Your task to perform on an android device: change timer sound Image 0: 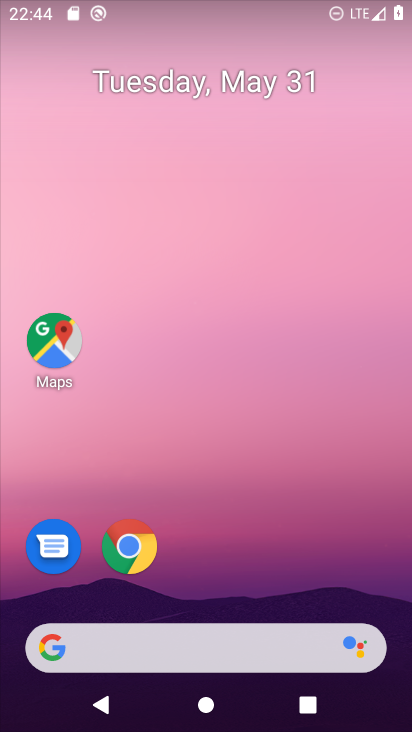
Step 0: drag from (399, 685) to (379, 146)
Your task to perform on an android device: change timer sound Image 1: 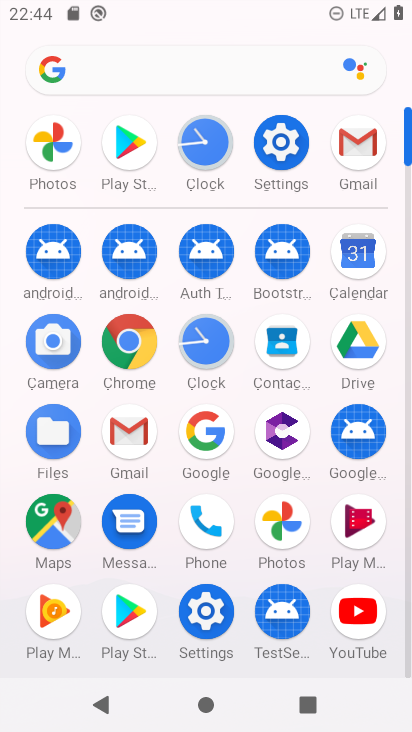
Step 1: click (282, 140)
Your task to perform on an android device: change timer sound Image 2: 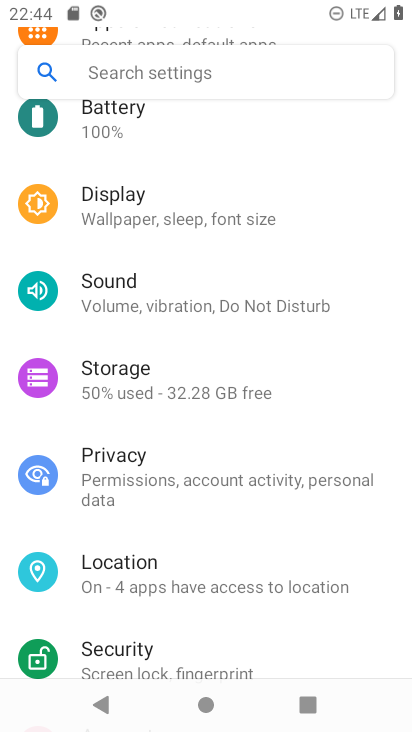
Step 2: press home button
Your task to perform on an android device: change timer sound Image 3: 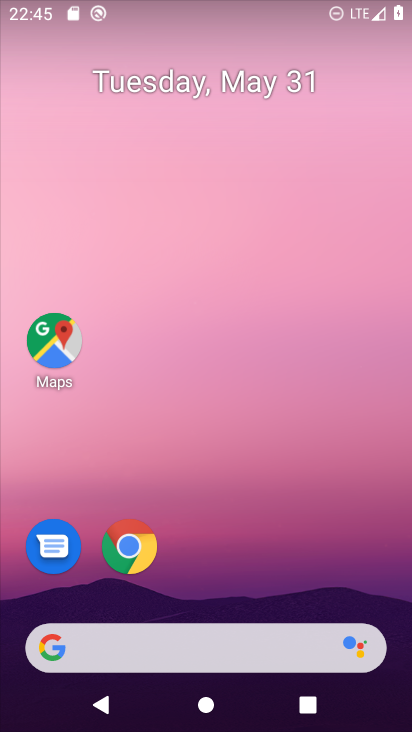
Step 3: drag from (391, 705) to (356, 149)
Your task to perform on an android device: change timer sound Image 4: 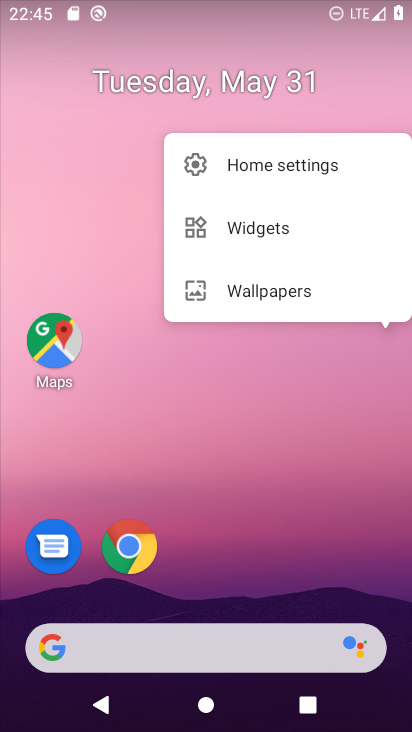
Step 4: press back button
Your task to perform on an android device: change timer sound Image 5: 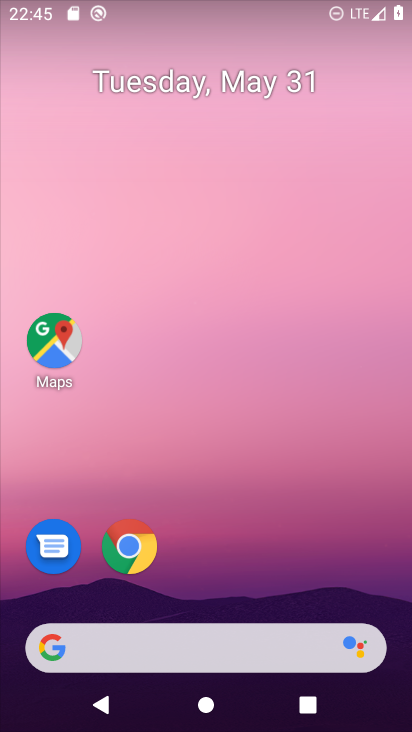
Step 5: drag from (398, 675) to (345, 96)
Your task to perform on an android device: change timer sound Image 6: 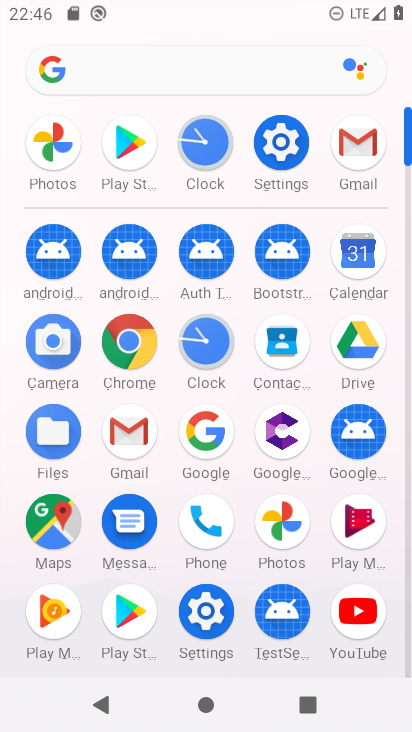
Step 6: click (207, 139)
Your task to perform on an android device: change timer sound Image 7: 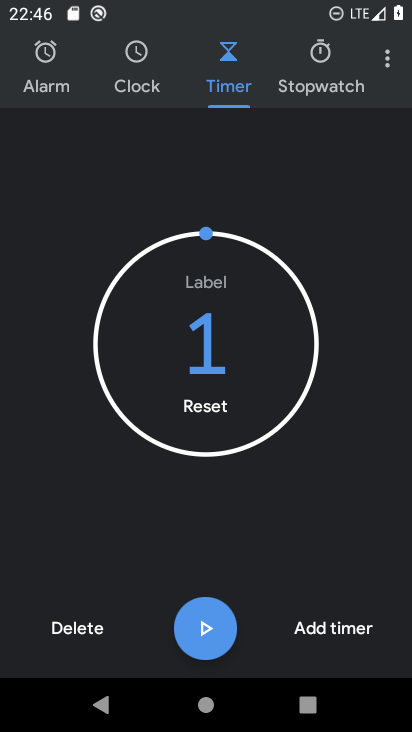
Step 7: click (381, 57)
Your task to perform on an android device: change timer sound Image 8: 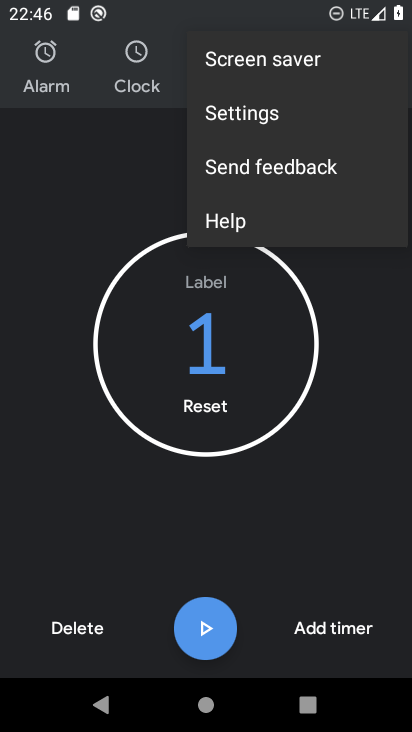
Step 8: click (234, 116)
Your task to perform on an android device: change timer sound Image 9: 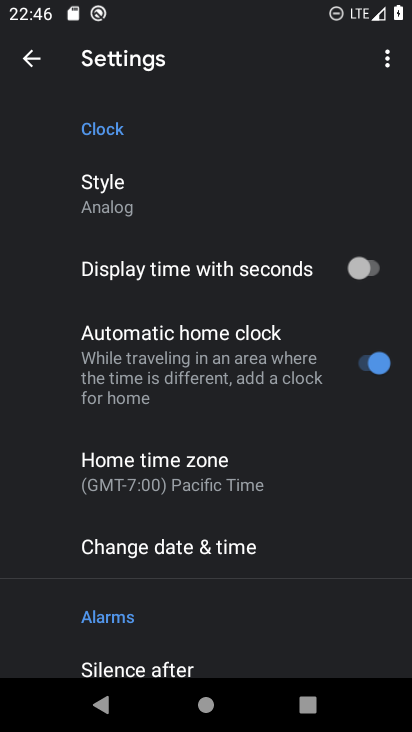
Step 9: drag from (276, 620) to (272, 276)
Your task to perform on an android device: change timer sound Image 10: 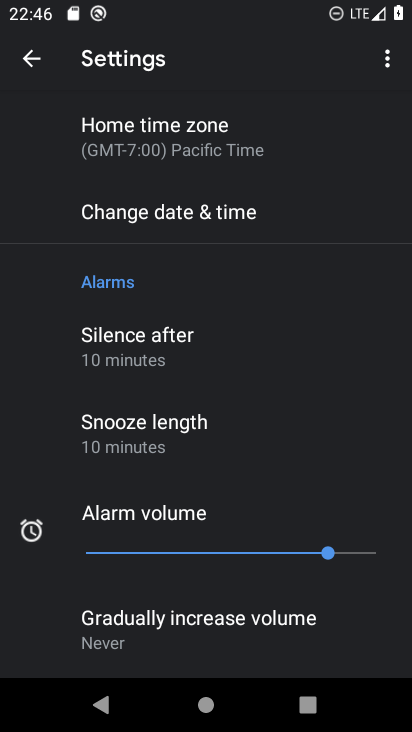
Step 10: drag from (265, 620) to (249, 281)
Your task to perform on an android device: change timer sound Image 11: 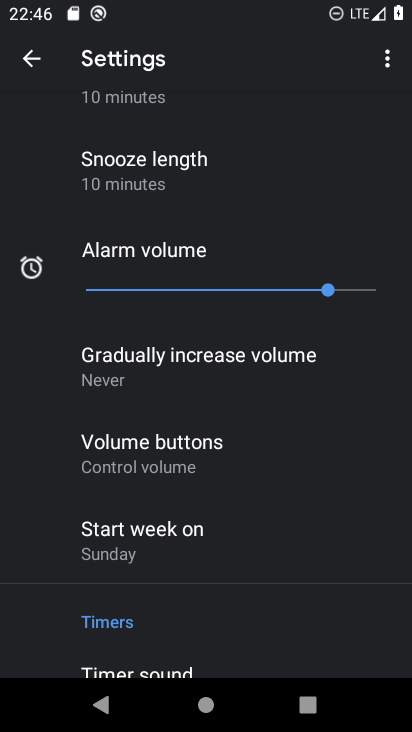
Step 11: drag from (256, 448) to (259, 175)
Your task to perform on an android device: change timer sound Image 12: 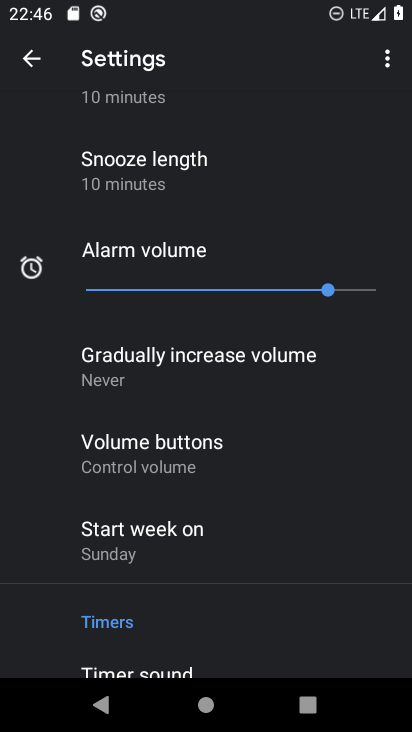
Step 12: click (300, 224)
Your task to perform on an android device: change timer sound Image 13: 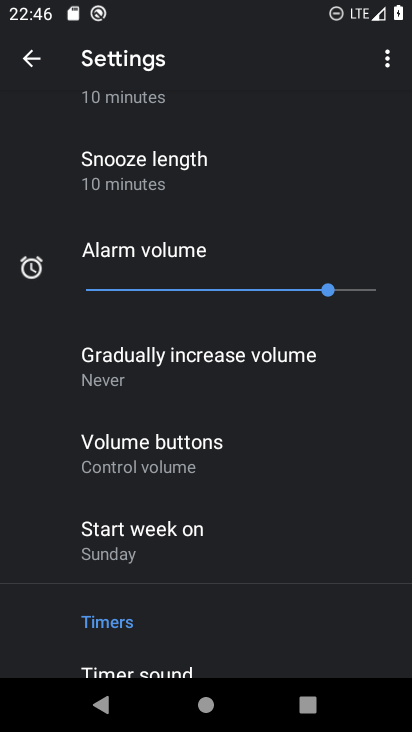
Step 13: drag from (266, 574) to (277, 252)
Your task to perform on an android device: change timer sound Image 14: 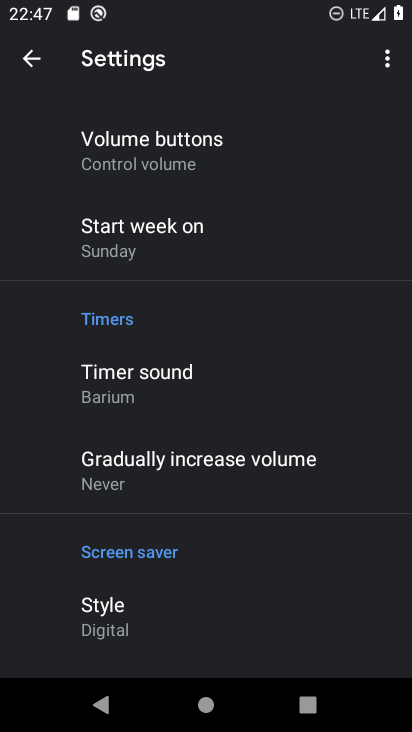
Step 14: click (140, 377)
Your task to perform on an android device: change timer sound Image 15: 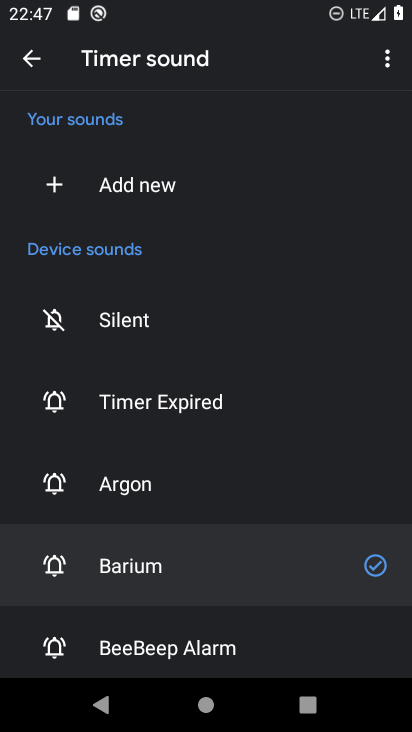
Step 15: click (128, 652)
Your task to perform on an android device: change timer sound Image 16: 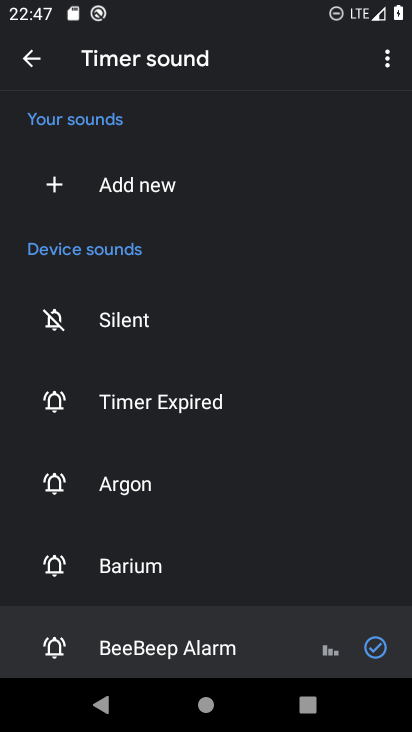
Step 16: task complete